Your task to perform on an android device: set the timer Image 0: 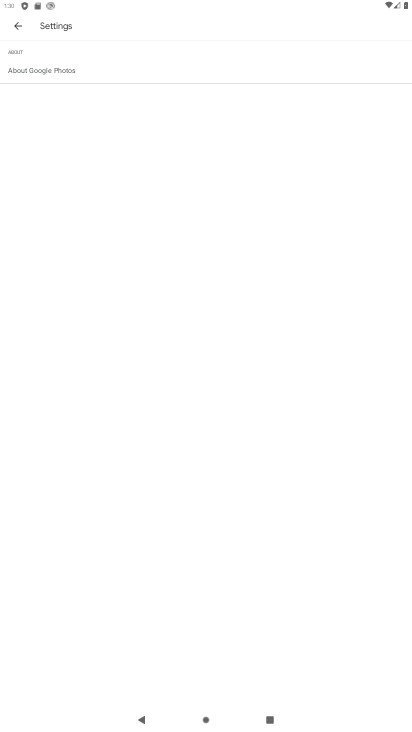
Step 0: press home button
Your task to perform on an android device: set the timer Image 1: 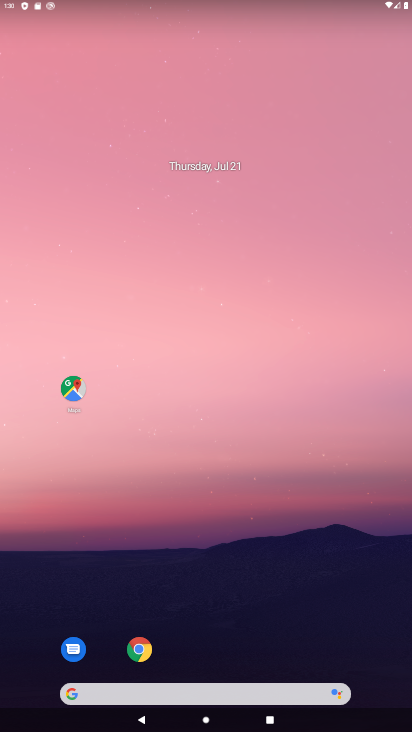
Step 1: drag from (284, 668) to (242, 277)
Your task to perform on an android device: set the timer Image 2: 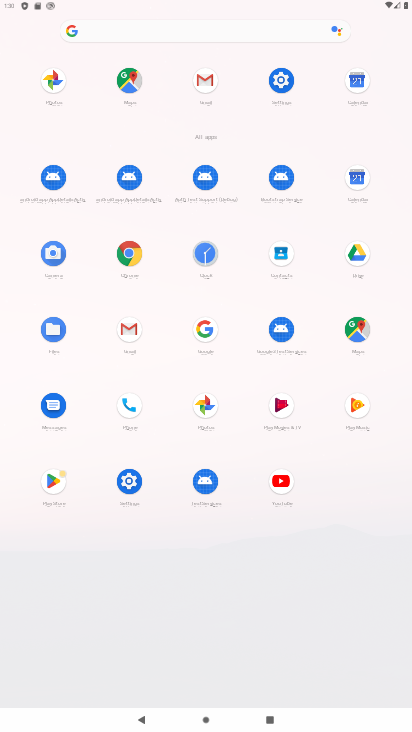
Step 2: click (195, 254)
Your task to perform on an android device: set the timer Image 3: 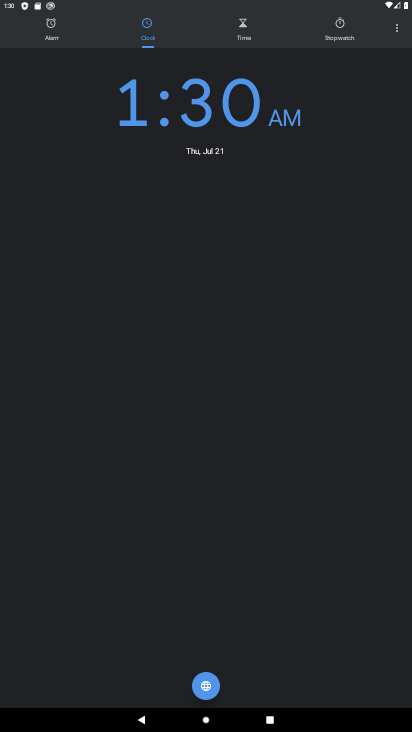
Step 3: click (248, 34)
Your task to perform on an android device: set the timer Image 4: 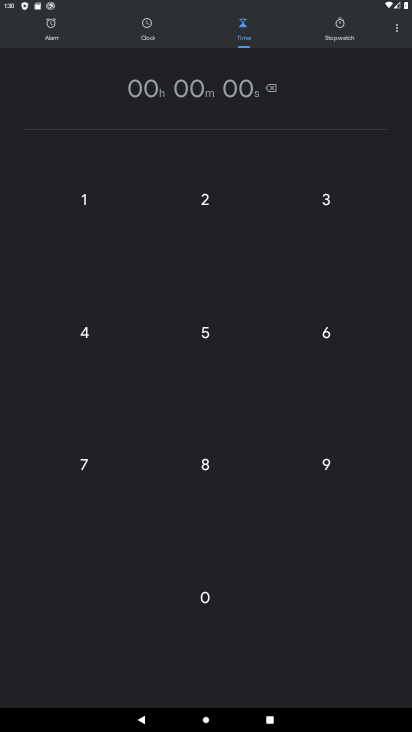
Step 4: click (230, 221)
Your task to perform on an android device: set the timer Image 5: 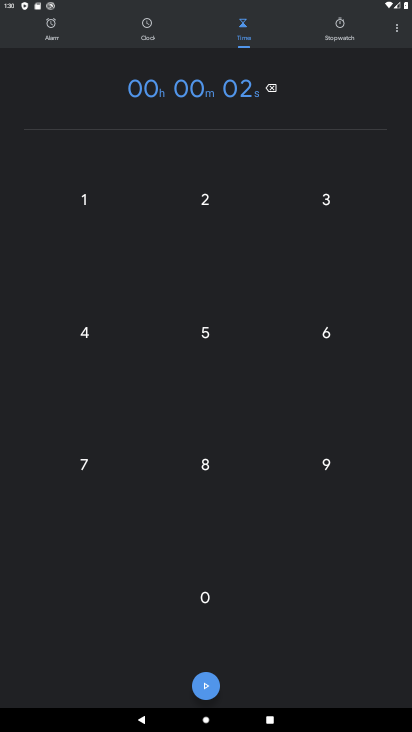
Step 5: click (230, 221)
Your task to perform on an android device: set the timer Image 6: 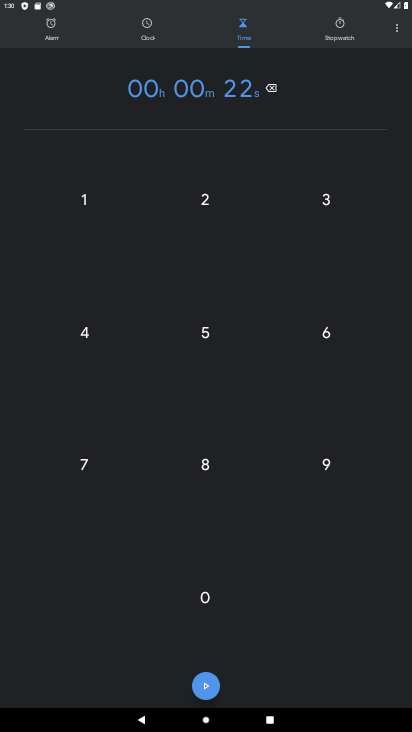
Step 6: click (212, 678)
Your task to perform on an android device: set the timer Image 7: 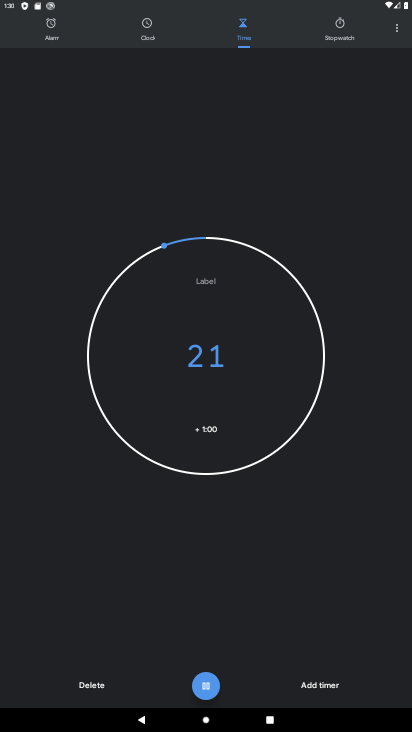
Step 7: task complete